Your task to perform on an android device: What's the latest news in space? Image 0: 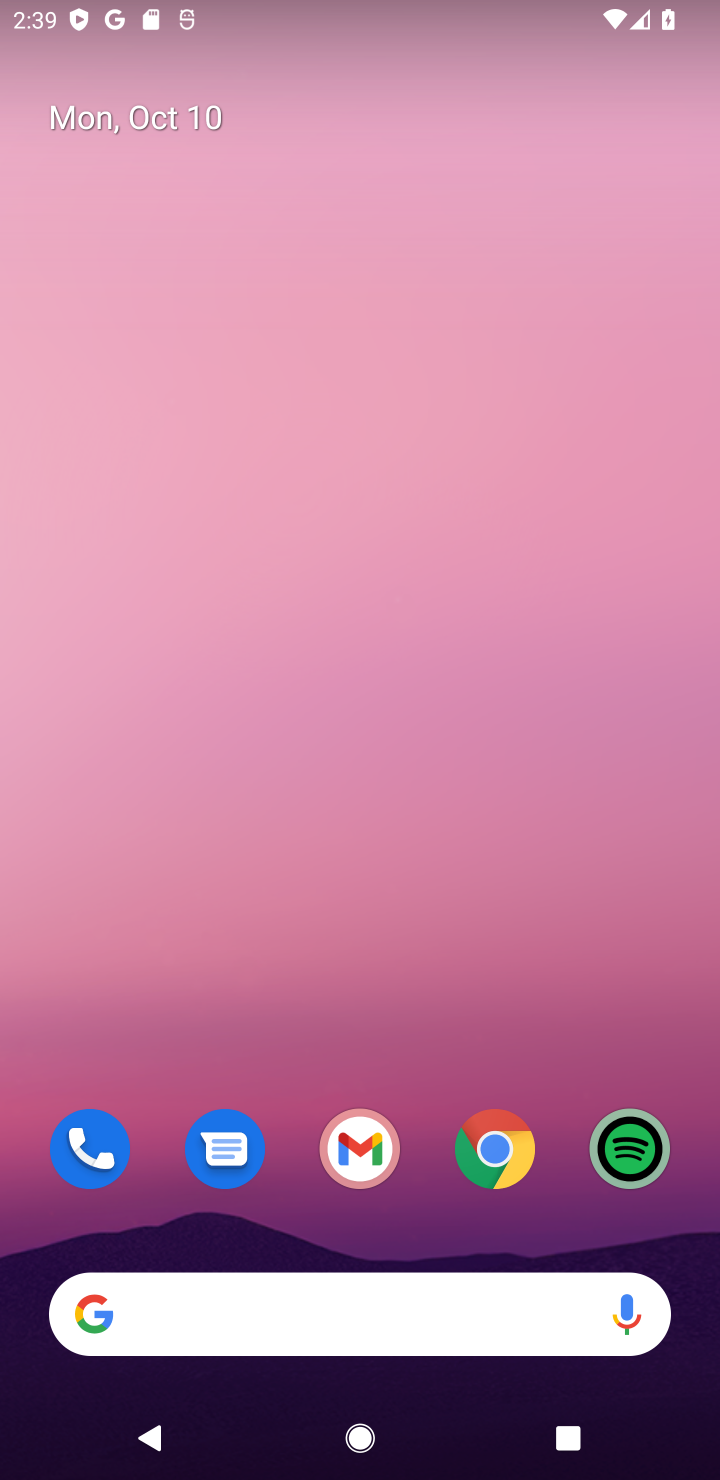
Step 0: click (290, 1306)
Your task to perform on an android device: What's the latest news in space? Image 1: 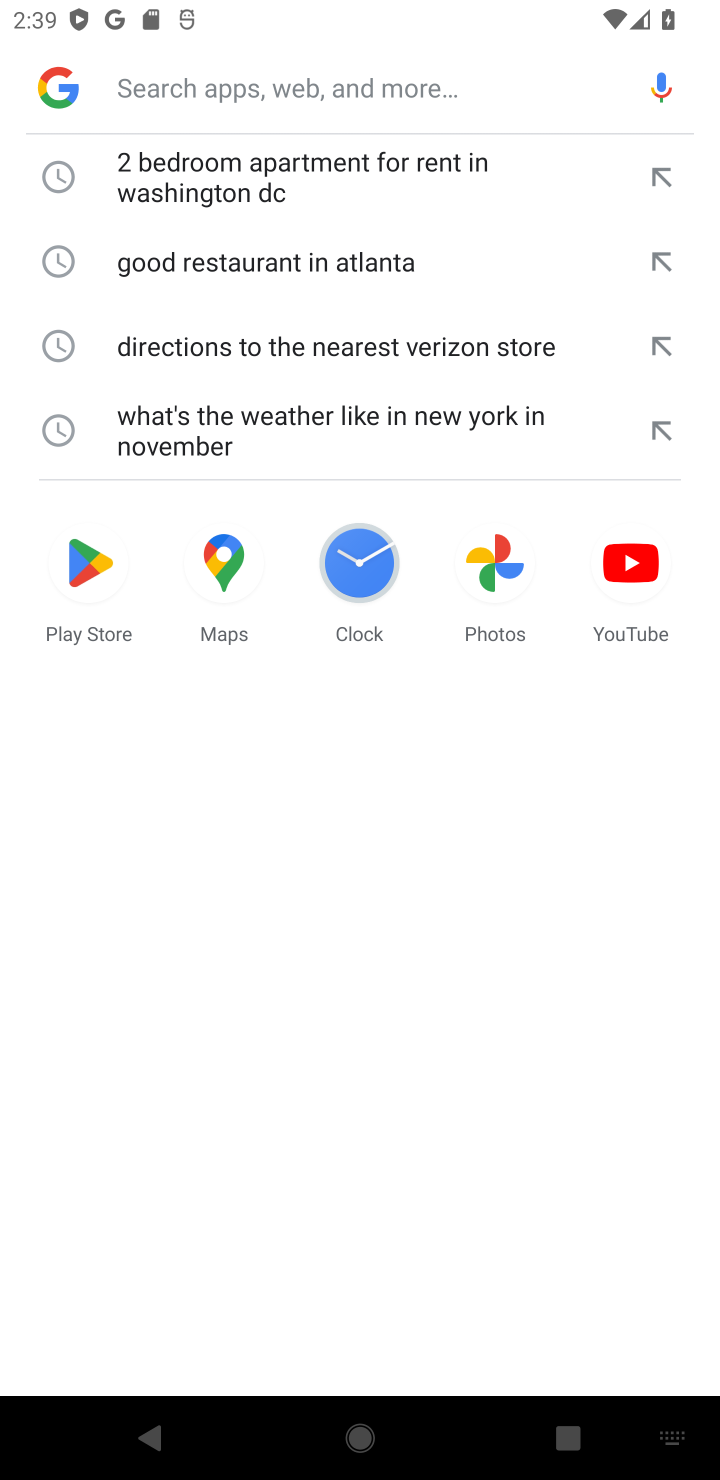
Step 1: type "news in space"
Your task to perform on an android device: What's the latest news in space? Image 2: 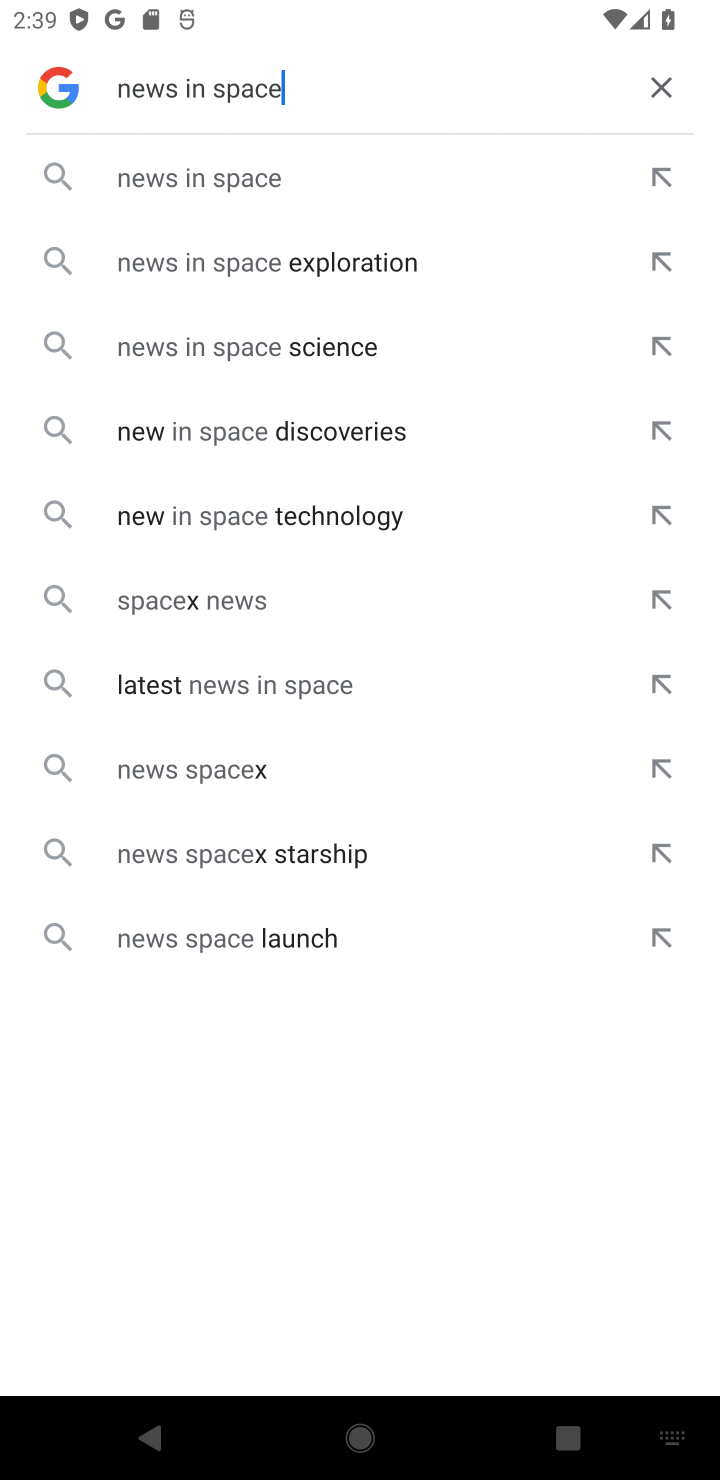
Step 2: click (378, 180)
Your task to perform on an android device: What's the latest news in space? Image 3: 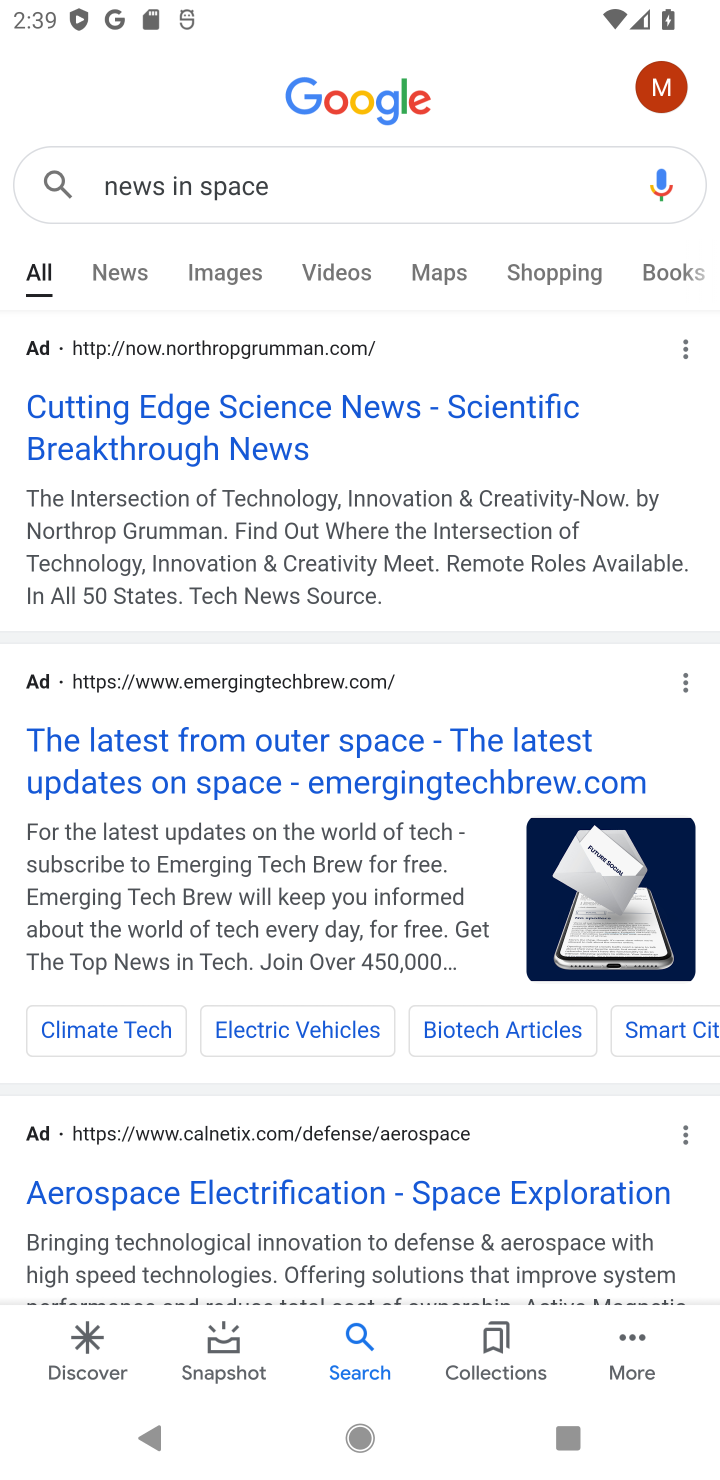
Step 3: click (223, 460)
Your task to perform on an android device: What's the latest news in space? Image 4: 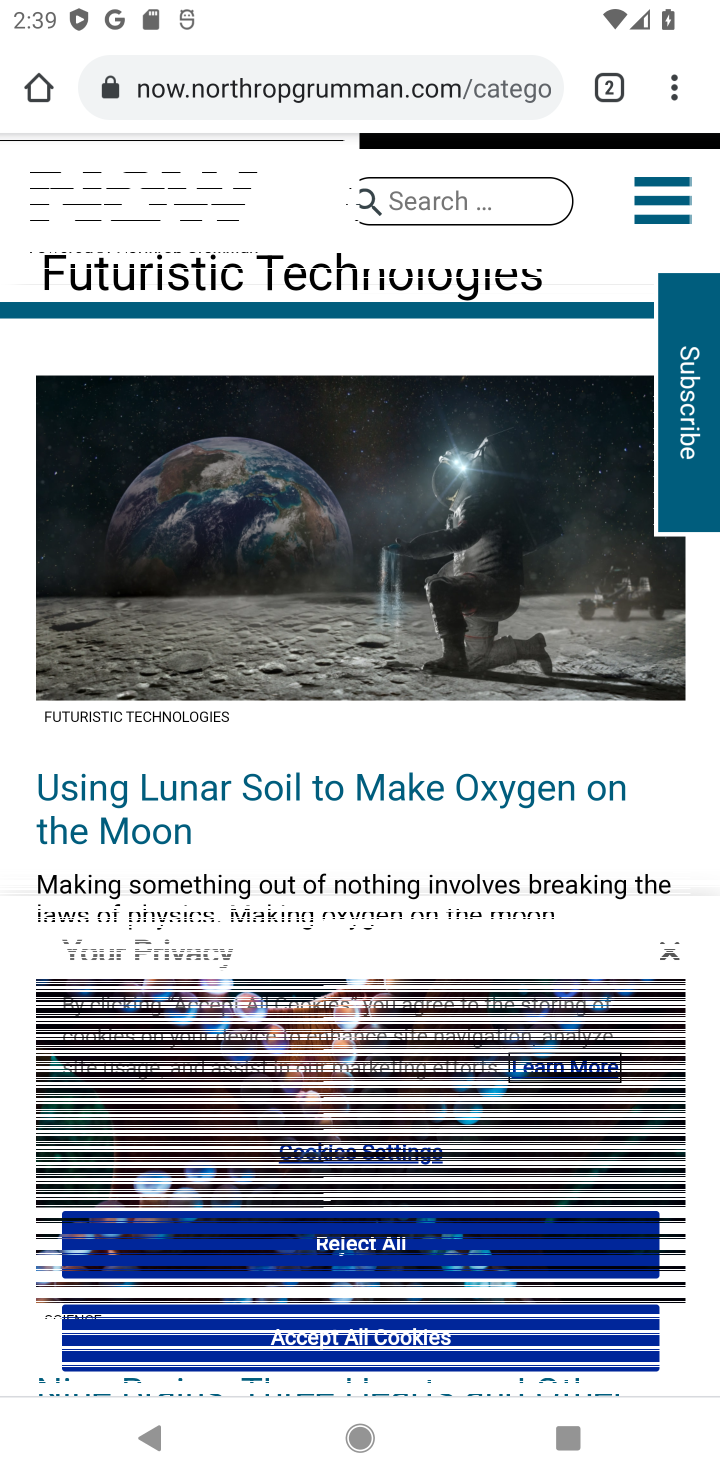
Step 4: task complete